Your task to perform on an android device: Open network settings Image 0: 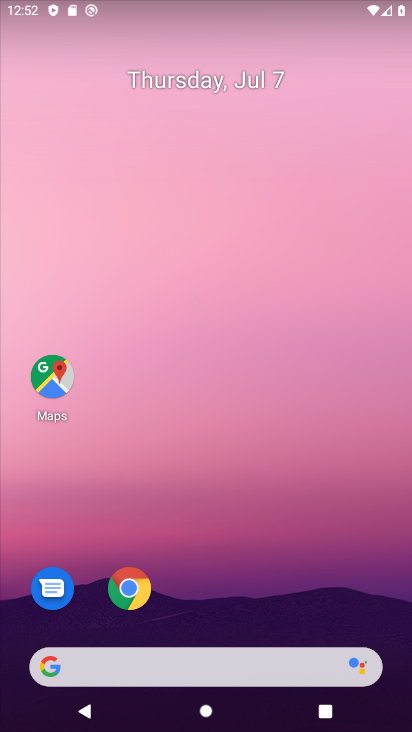
Step 0: drag from (199, 610) to (229, 338)
Your task to perform on an android device: Open network settings Image 1: 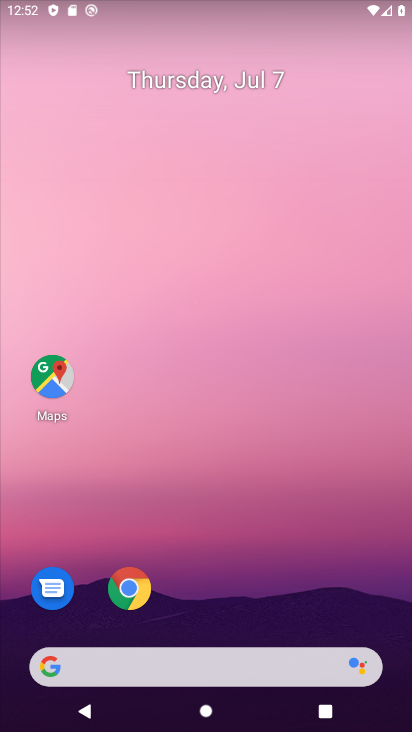
Step 1: drag from (238, 533) to (238, 345)
Your task to perform on an android device: Open network settings Image 2: 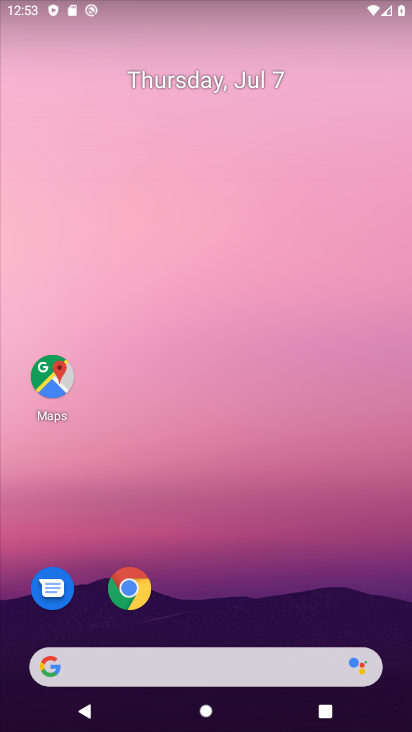
Step 2: drag from (200, 654) to (232, 300)
Your task to perform on an android device: Open network settings Image 3: 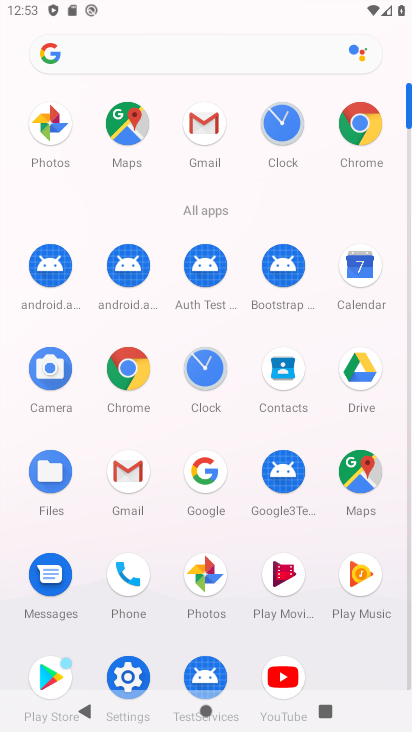
Step 3: click (123, 666)
Your task to perform on an android device: Open network settings Image 4: 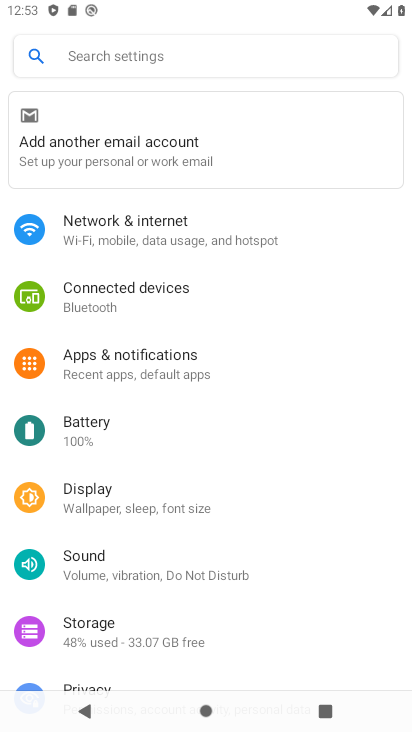
Step 4: click (126, 242)
Your task to perform on an android device: Open network settings Image 5: 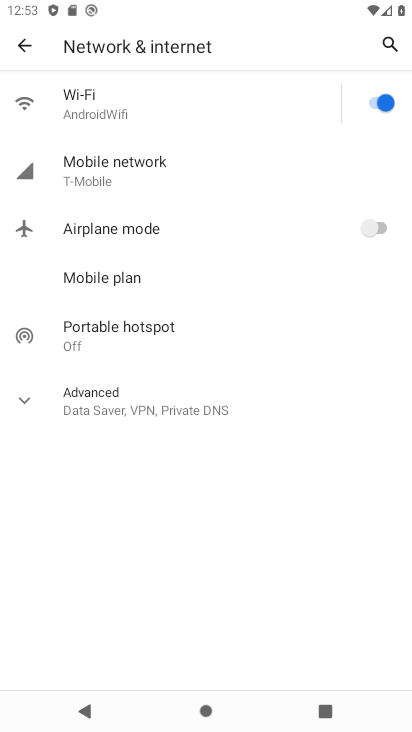
Step 5: task complete